Your task to perform on an android device: Open the Play Movies app and select the watchlist tab. Image 0: 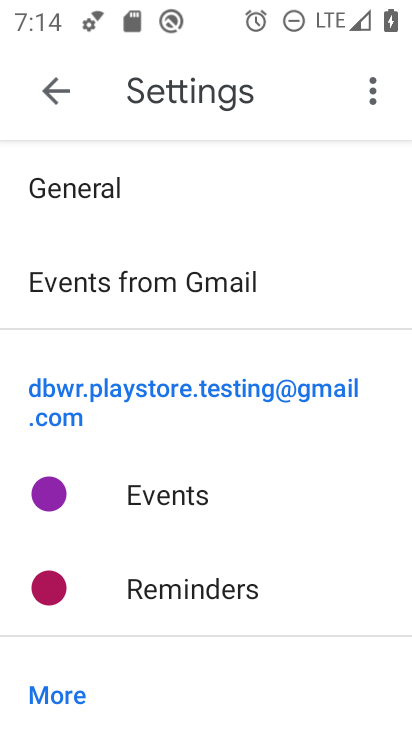
Step 0: press home button
Your task to perform on an android device: Open the Play Movies app and select the watchlist tab. Image 1: 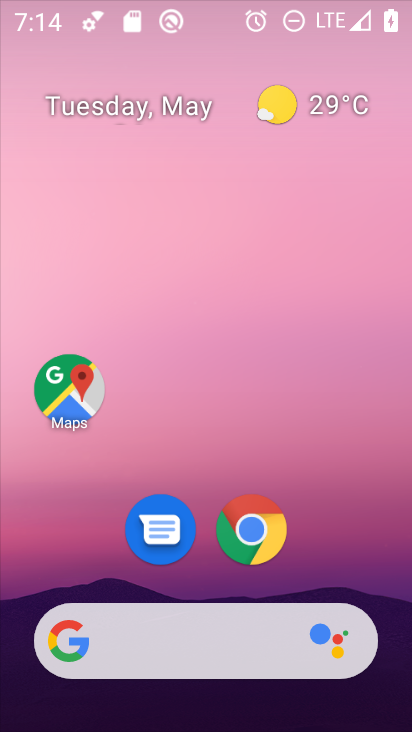
Step 1: drag from (378, 639) to (348, 285)
Your task to perform on an android device: Open the Play Movies app and select the watchlist tab. Image 2: 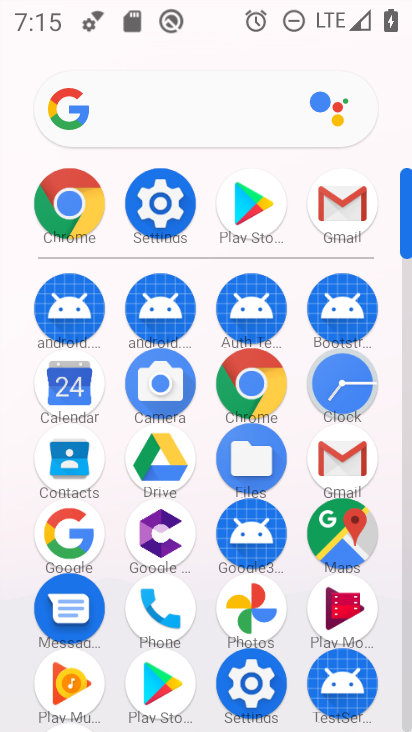
Step 2: click (331, 635)
Your task to perform on an android device: Open the Play Movies app and select the watchlist tab. Image 3: 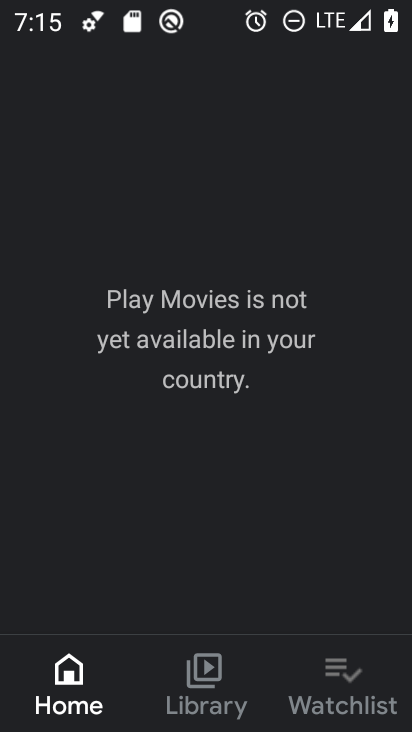
Step 3: click (342, 683)
Your task to perform on an android device: Open the Play Movies app and select the watchlist tab. Image 4: 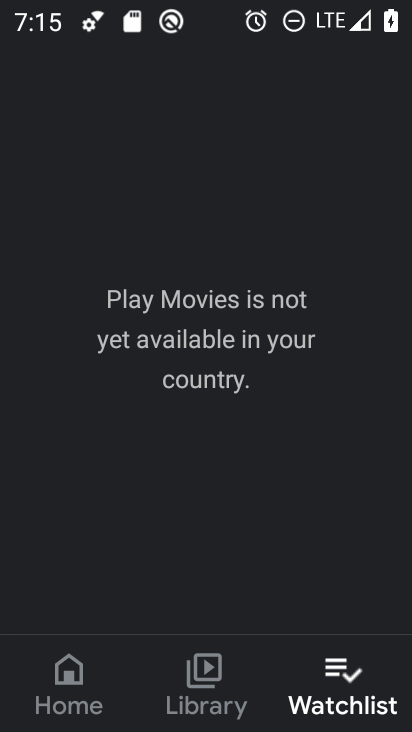
Step 4: task complete